Your task to perform on an android device: Go to Google maps Image 0: 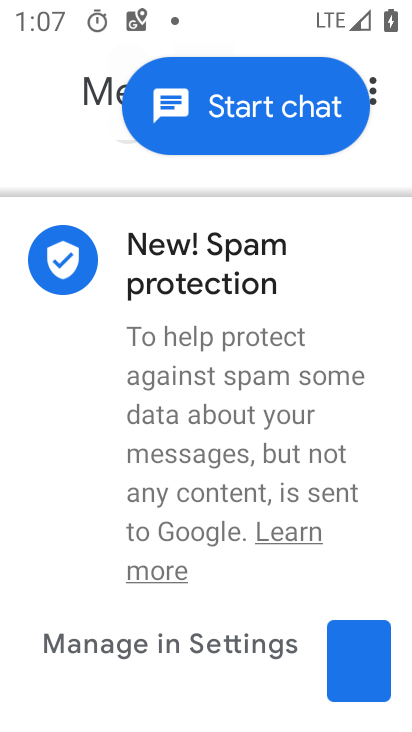
Step 0: press home button
Your task to perform on an android device: Go to Google maps Image 1: 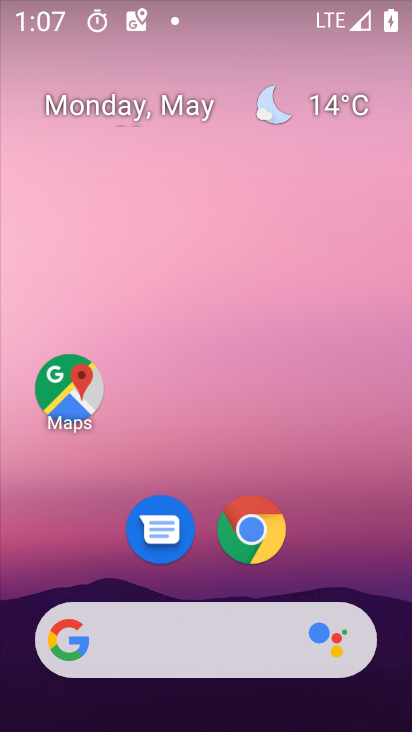
Step 1: drag from (379, 563) to (365, 108)
Your task to perform on an android device: Go to Google maps Image 2: 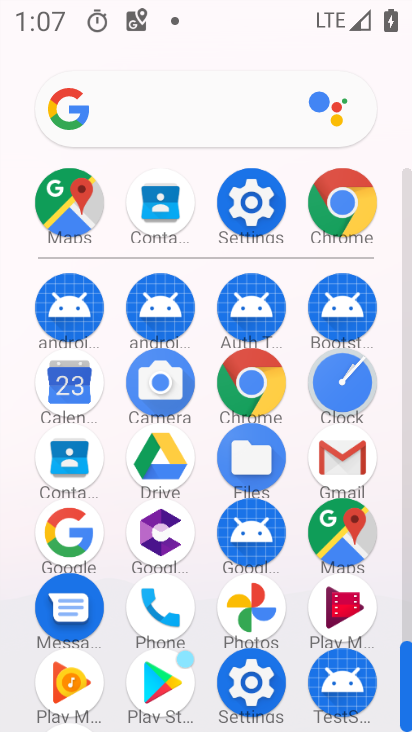
Step 2: click (331, 548)
Your task to perform on an android device: Go to Google maps Image 3: 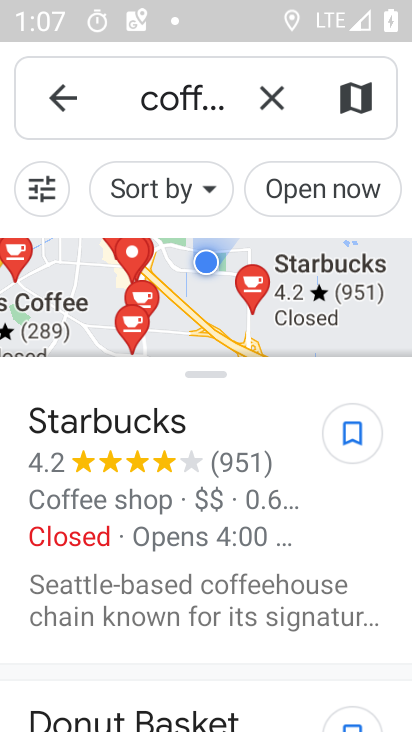
Step 3: task complete